Your task to perform on an android device: How much does a 3 bedroom apartment rent for in Dallas? Image 0: 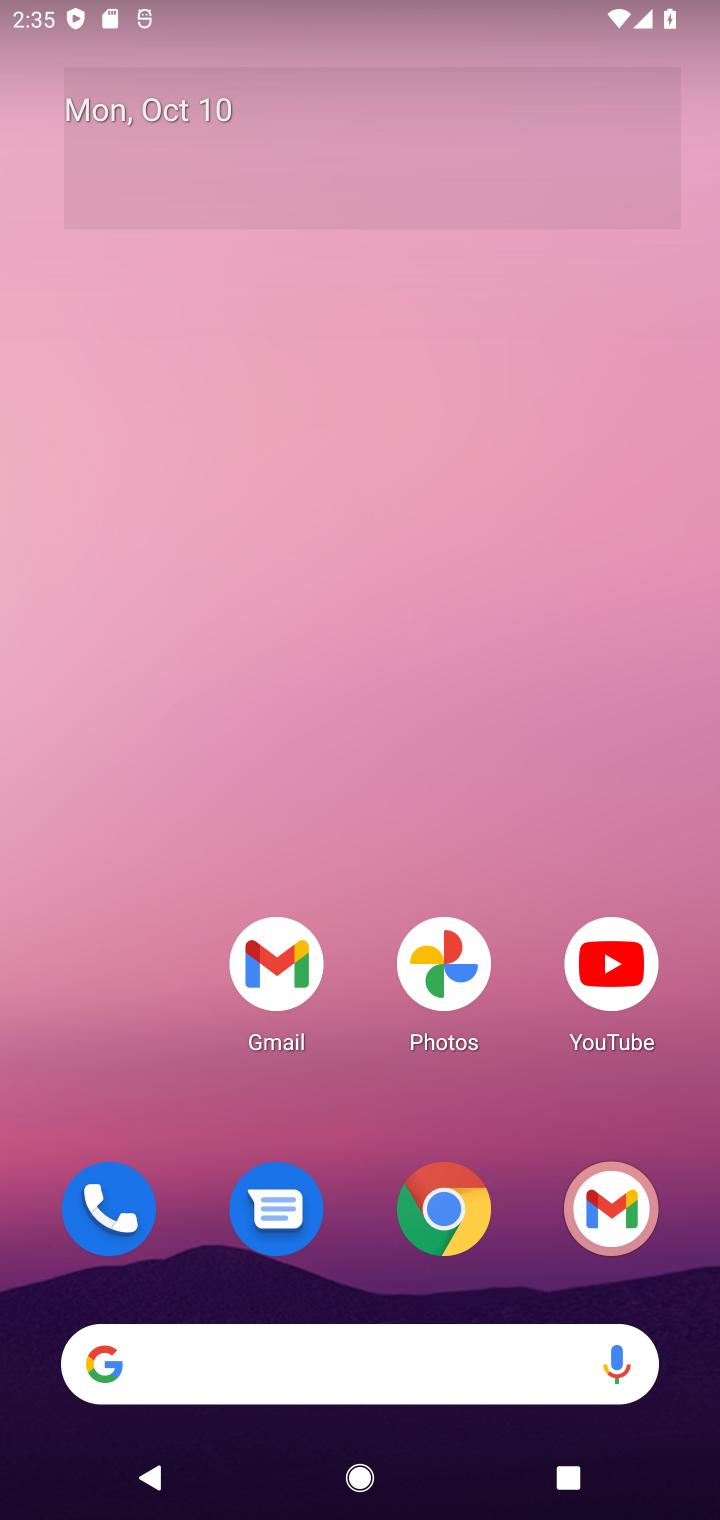
Step 0: click (454, 1257)
Your task to perform on an android device: How much does a 3 bedroom apartment rent for in Dallas? Image 1: 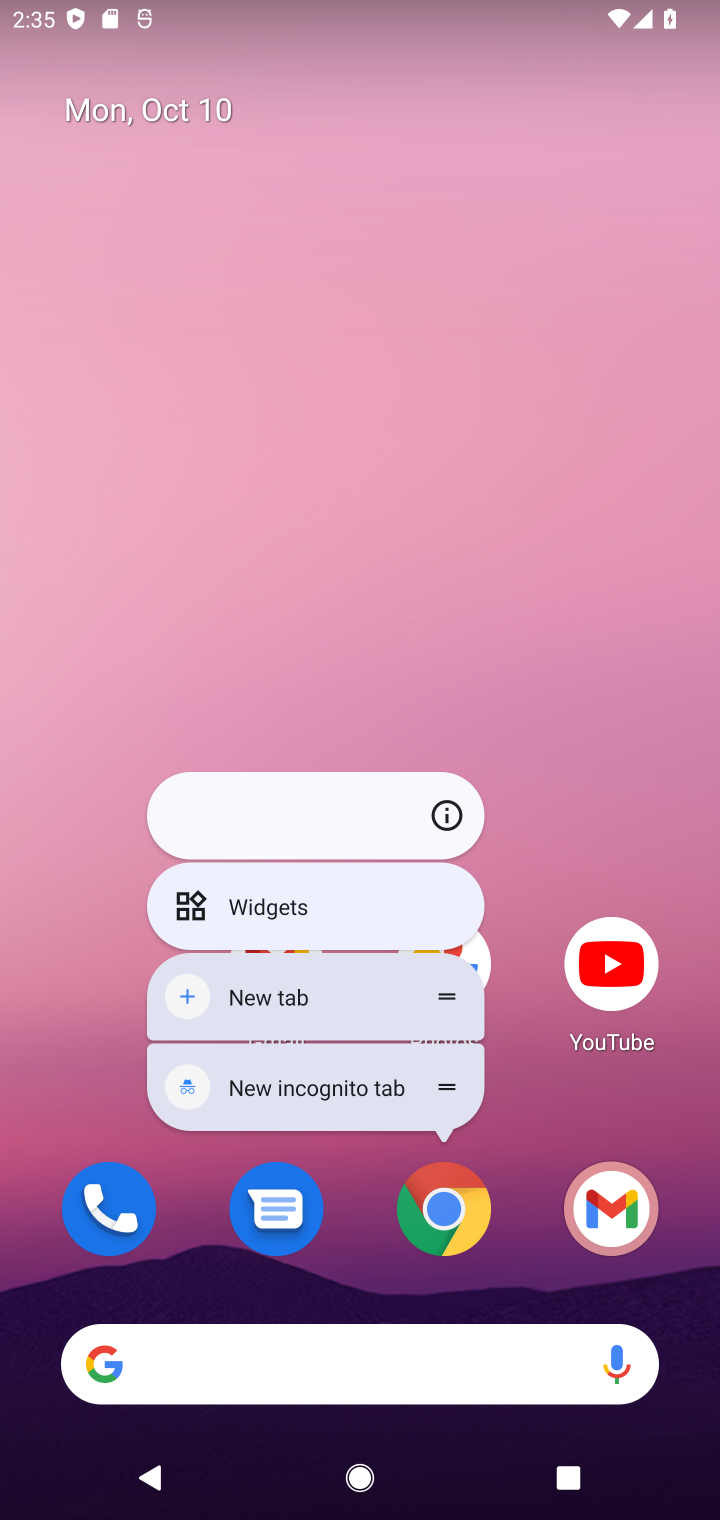
Step 1: click (447, 1207)
Your task to perform on an android device: How much does a 3 bedroom apartment rent for in Dallas? Image 2: 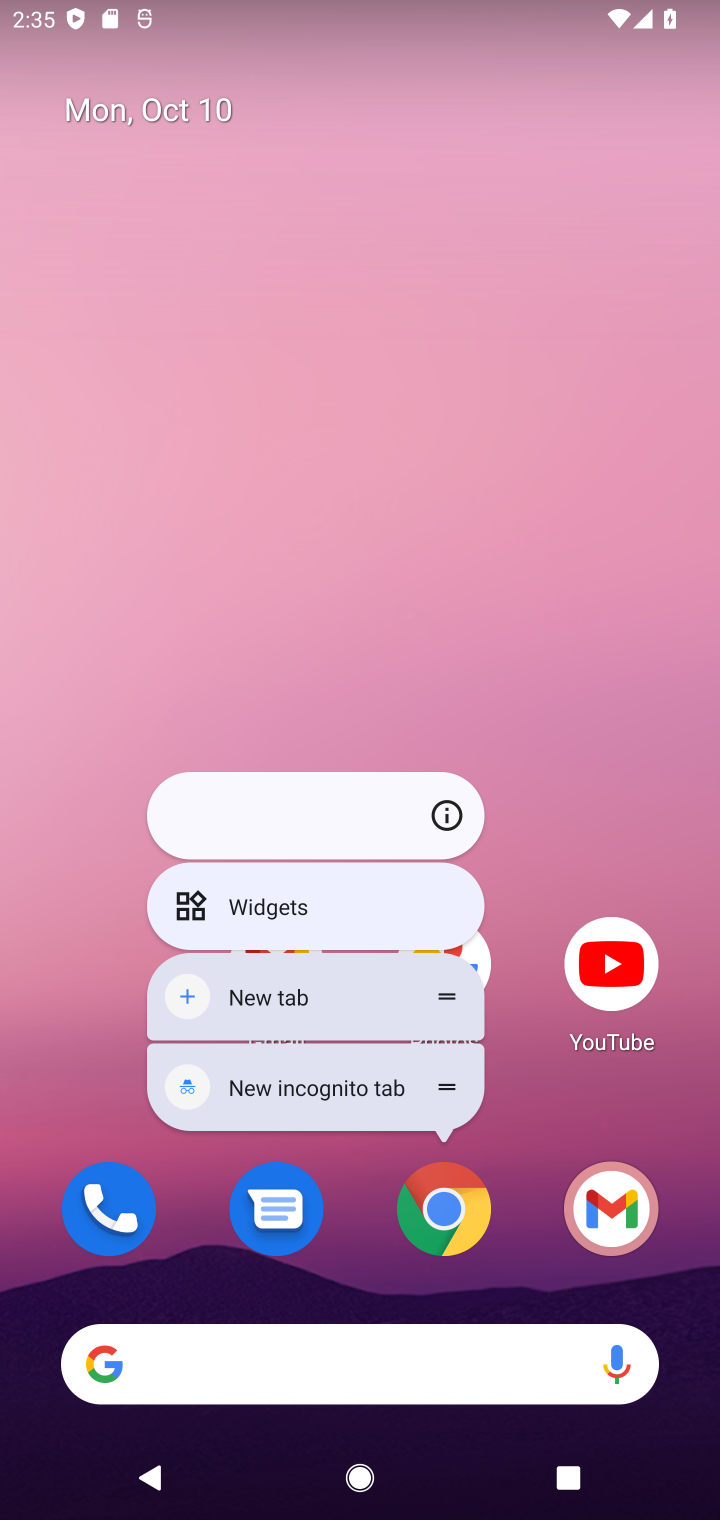
Step 2: click (447, 1207)
Your task to perform on an android device: How much does a 3 bedroom apartment rent for in Dallas? Image 3: 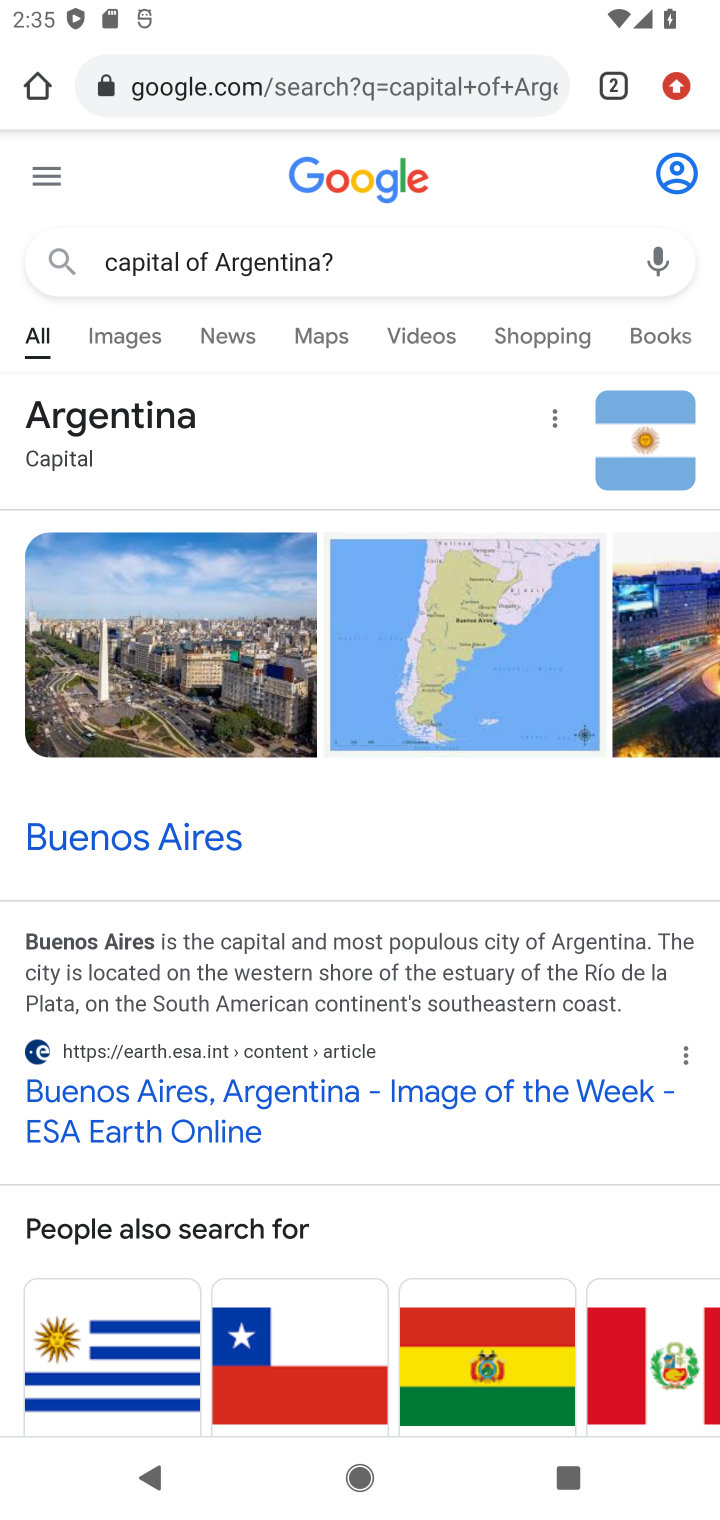
Step 3: drag from (709, 1421) to (698, 1234)
Your task to perform on an android device: How much does a 3 bedroom apartment rent for in Dallas? Image 4: 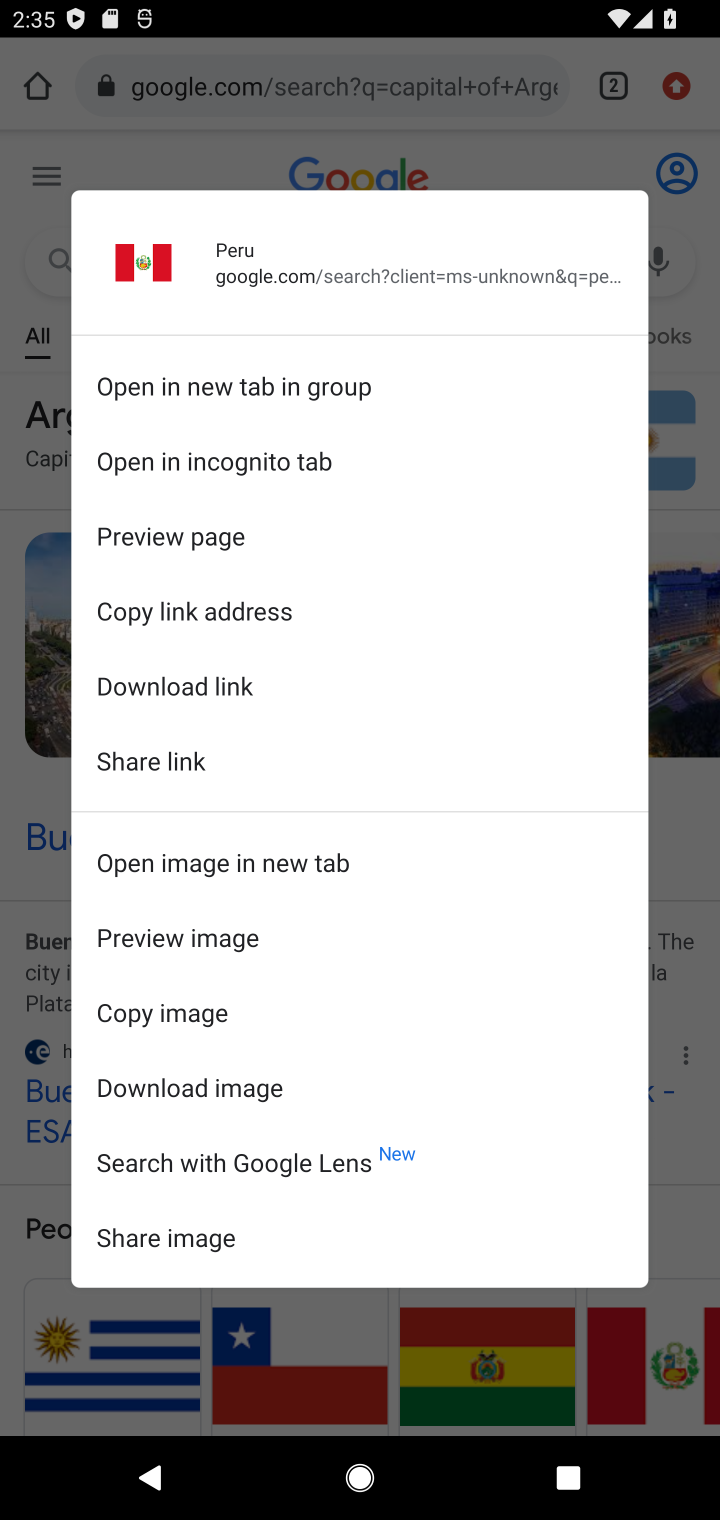
Step 4: click (692, 804)
Your task to perform on an android device: How much does a 3 bedroom apartment rent for in Dallas? Image 5: 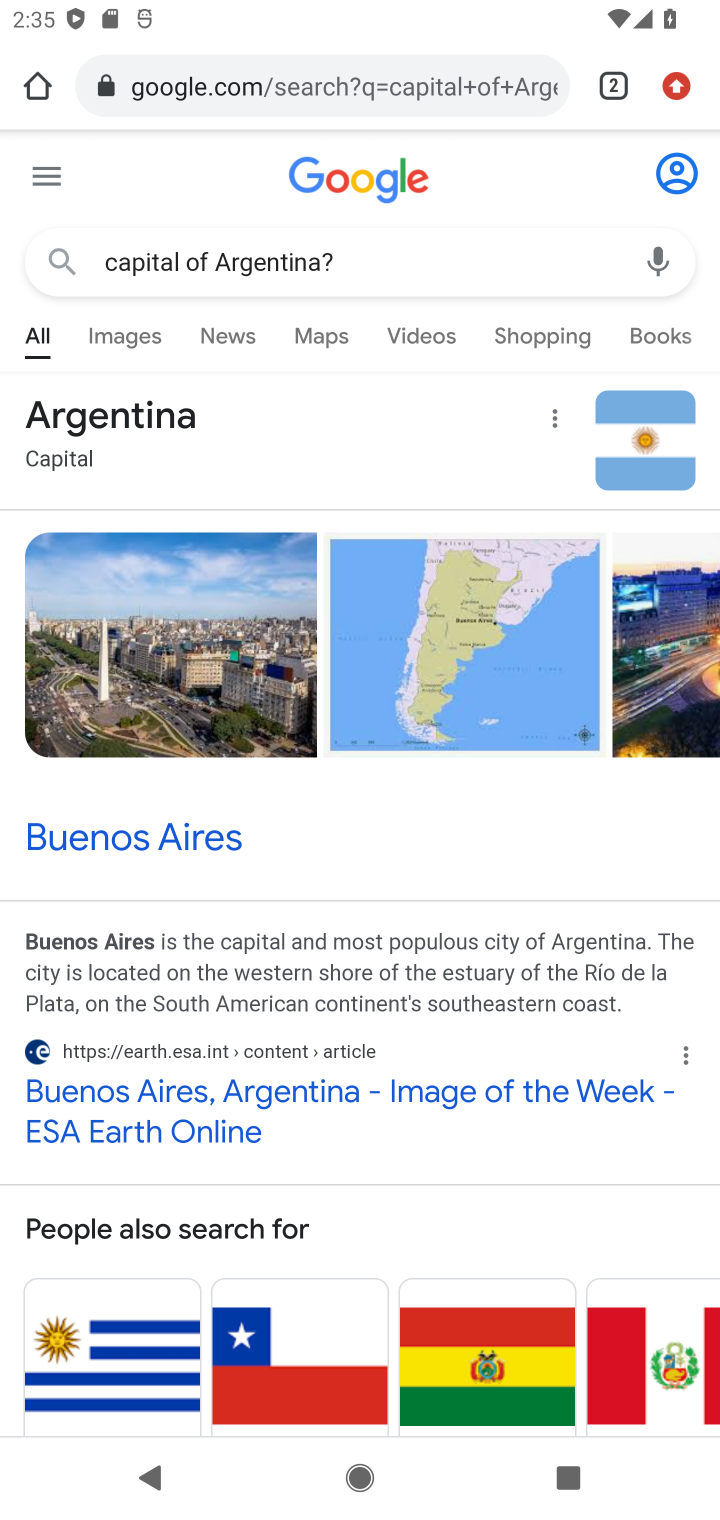
Step 5: click (423, 253)
Your task to perform on an android device: How much does a 3 bedroom apartment rent for in Dallas? Image 6: 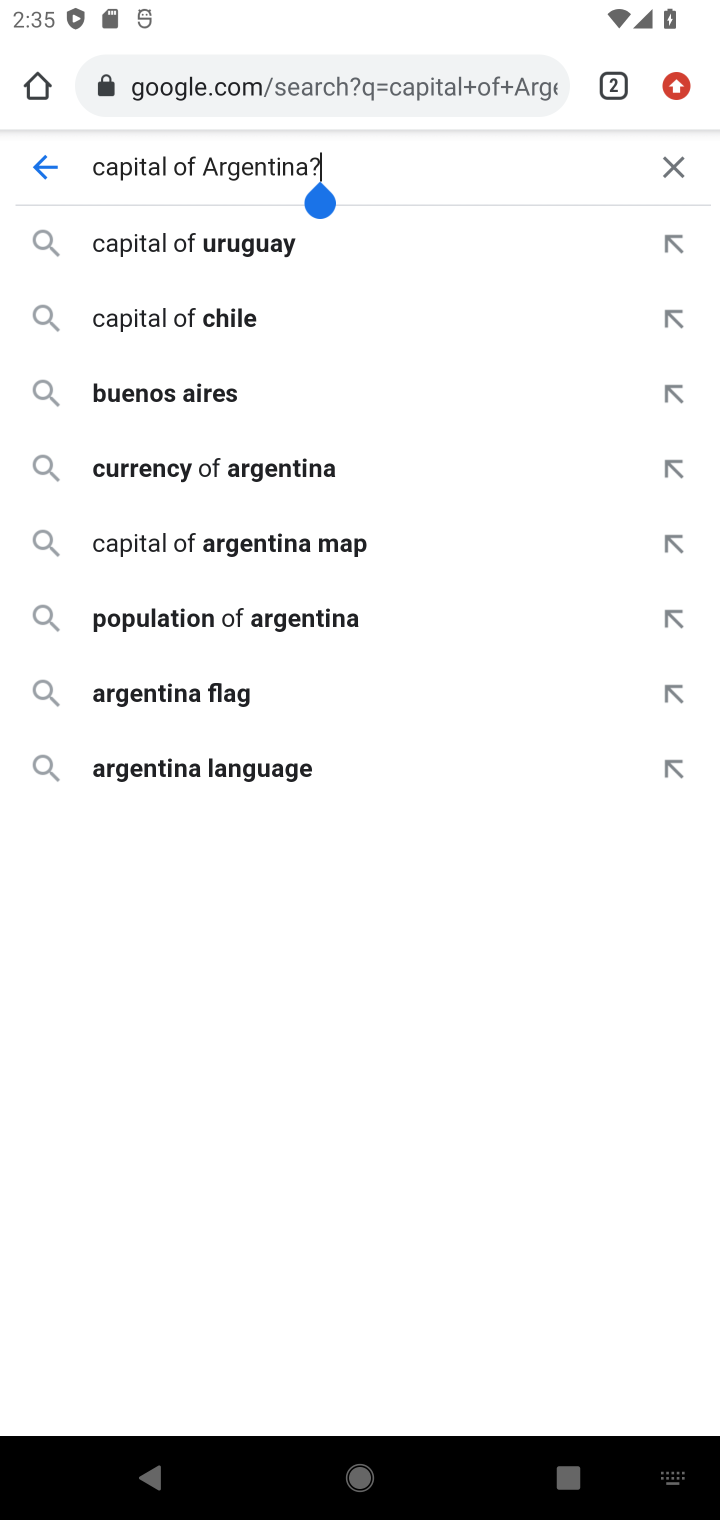
Step 6: click (685, 151)
Your task to perform on an android device: How much does a 3 bedroom apartment rent for in Dallas? Image 7: 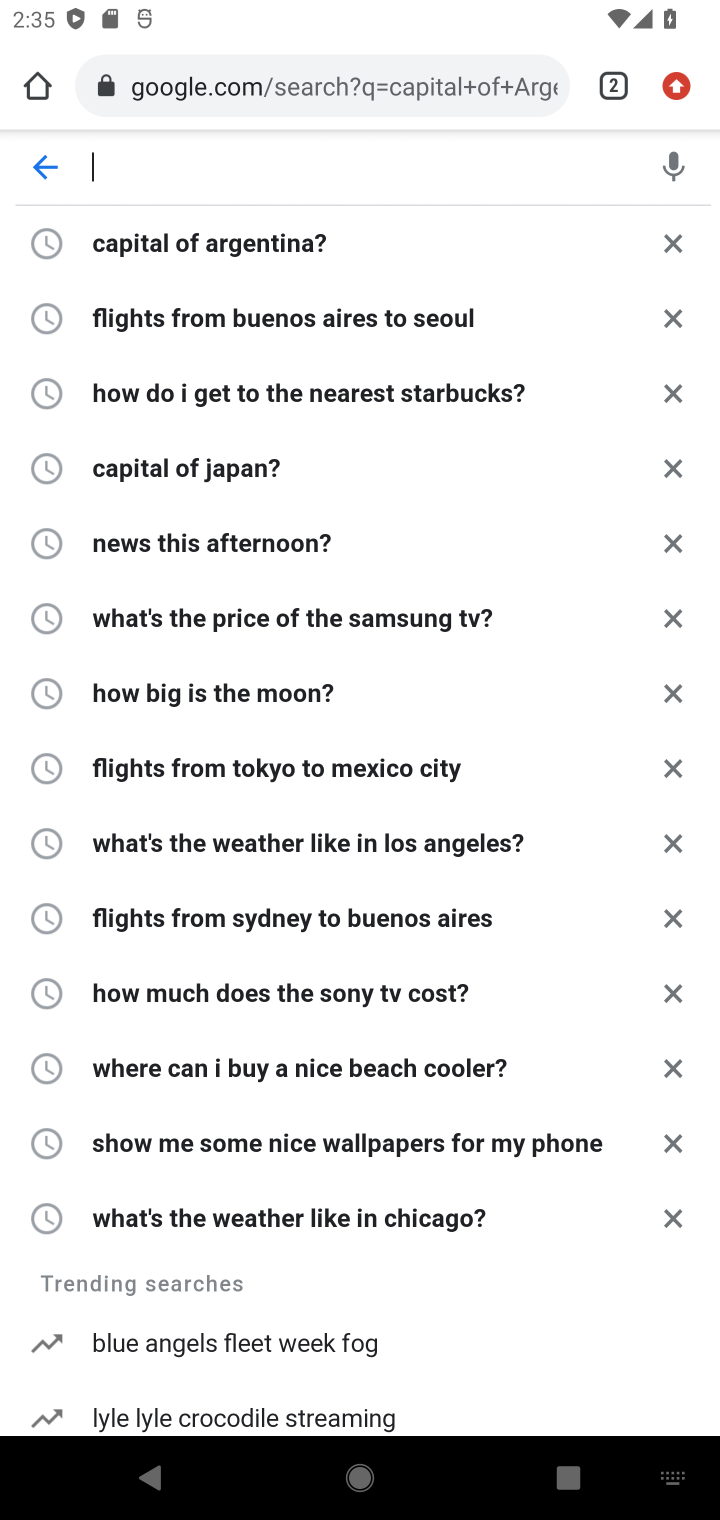
Step 7: type "How much does a 3 bedroom apartment rent for in Dallas?"
Your task to perform on an android device: How much does a 3 bedroom apartment rent for in Dallas? Image 8: 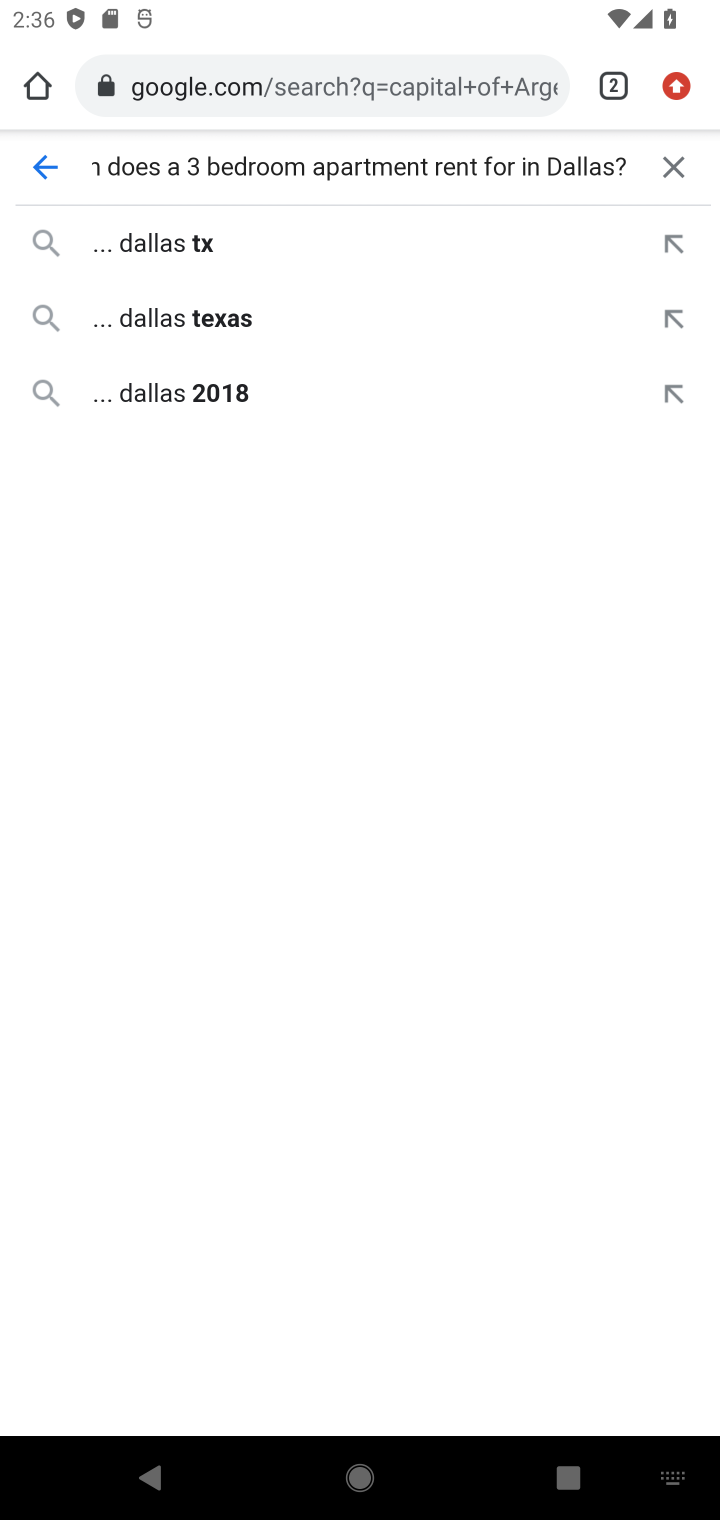
Step 8: press enter
Your task to perform on an android device: How much does a 3 bedroom apartment rent for in Dallas? Image 9: 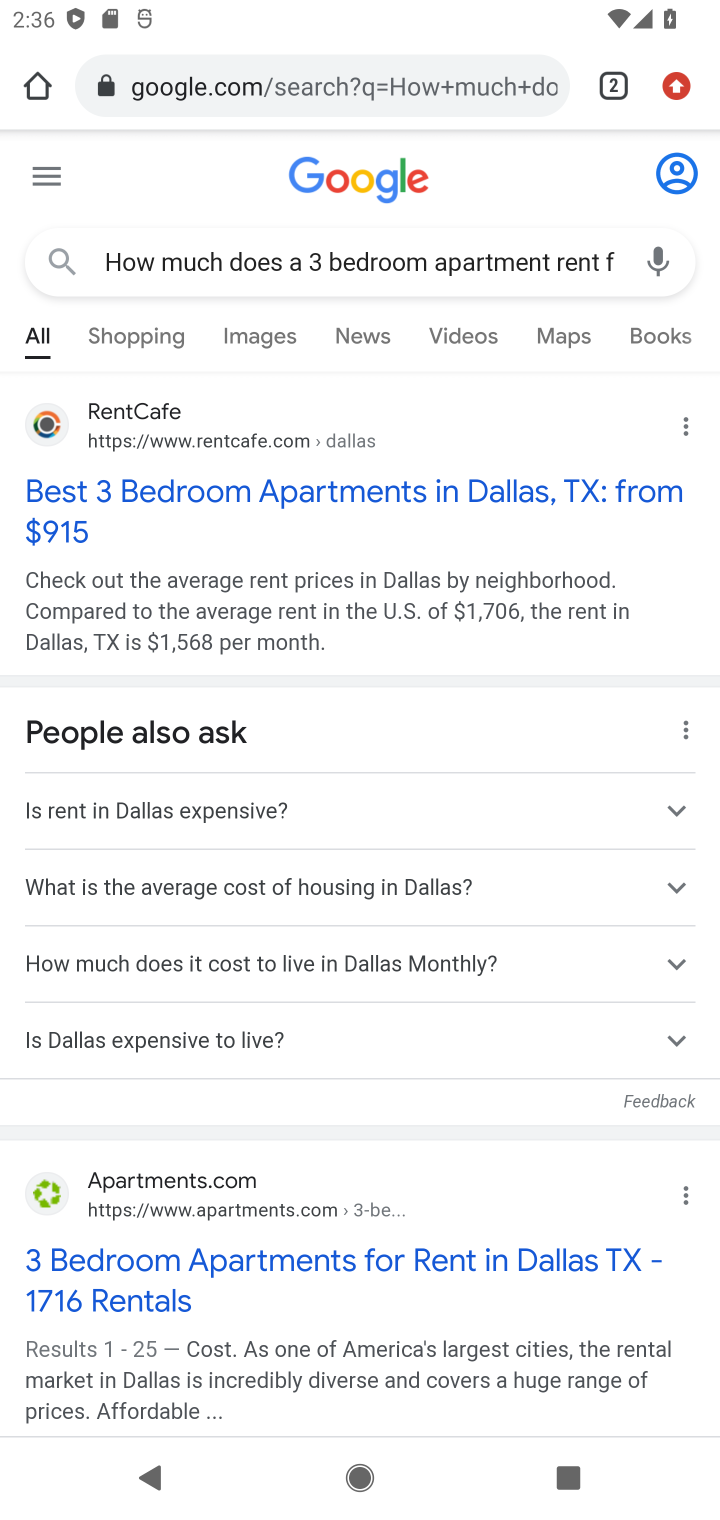
Step 9: click (214, 1273)
Your task to perform on an android device: How much does a 3 bedroom apartment rent for in Dallas? Image 10: 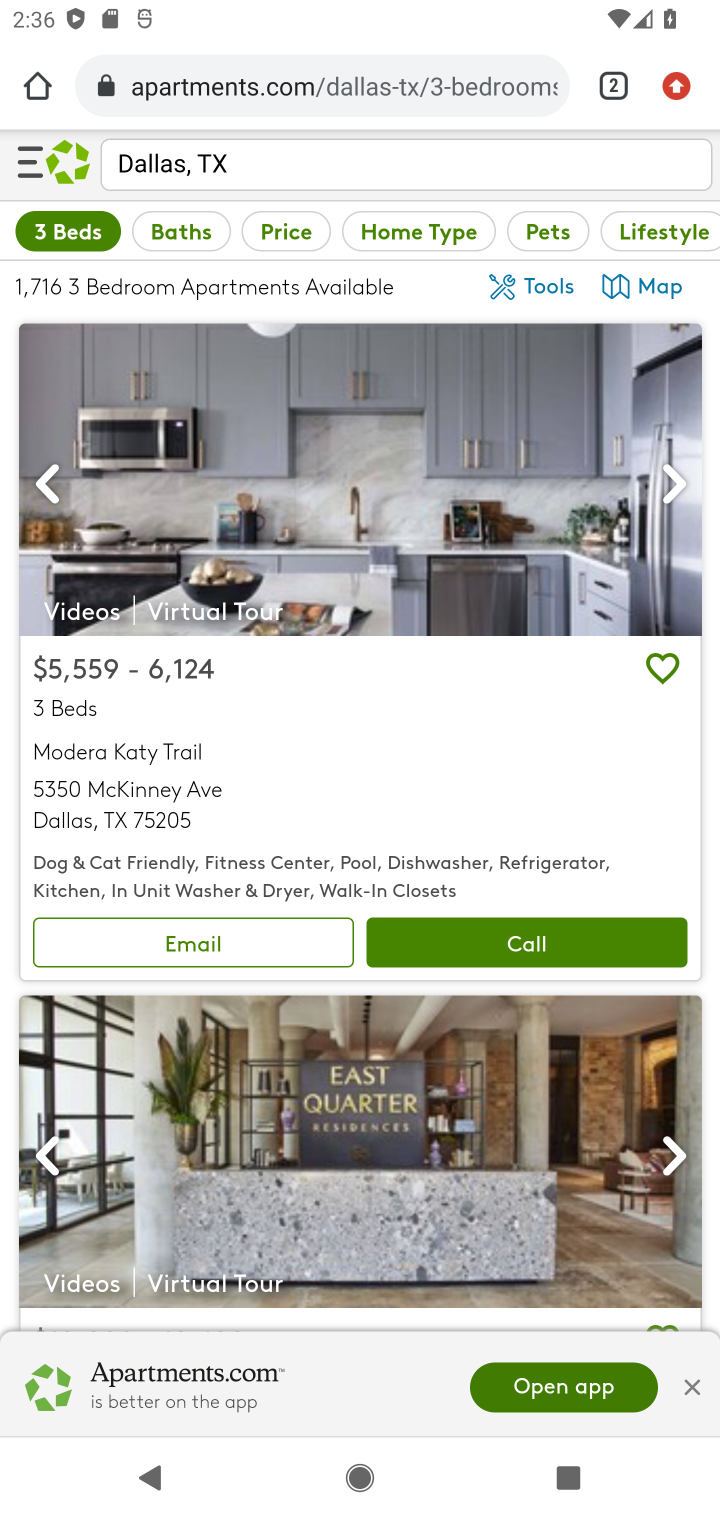
Step 10: task complete